Your task to perform on an android device: Open Google Maps Image 0: 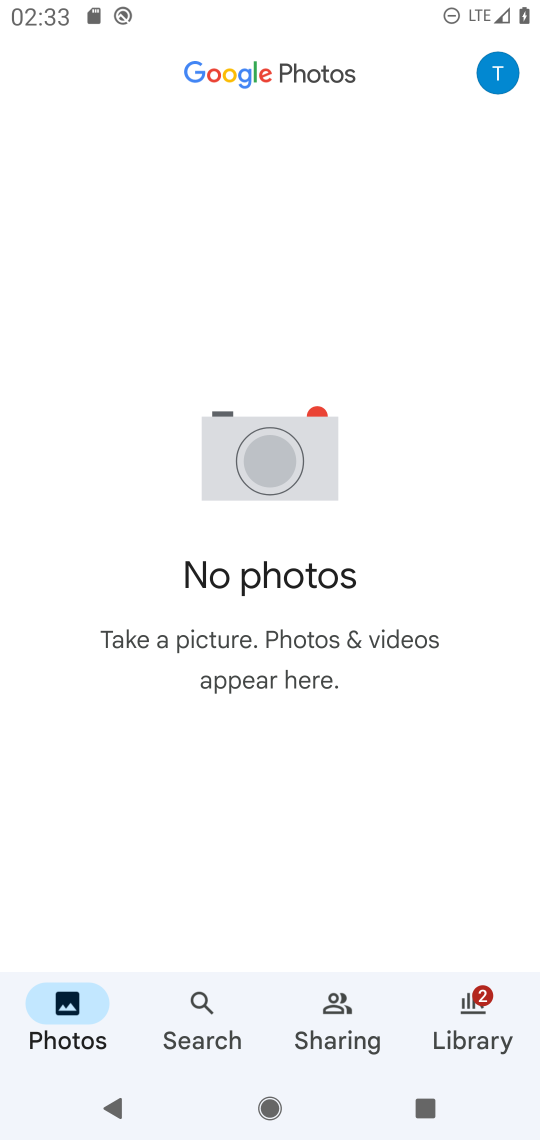
Step 0: press home button
Your task to perform on an android device: Open Google Maps Image 1: 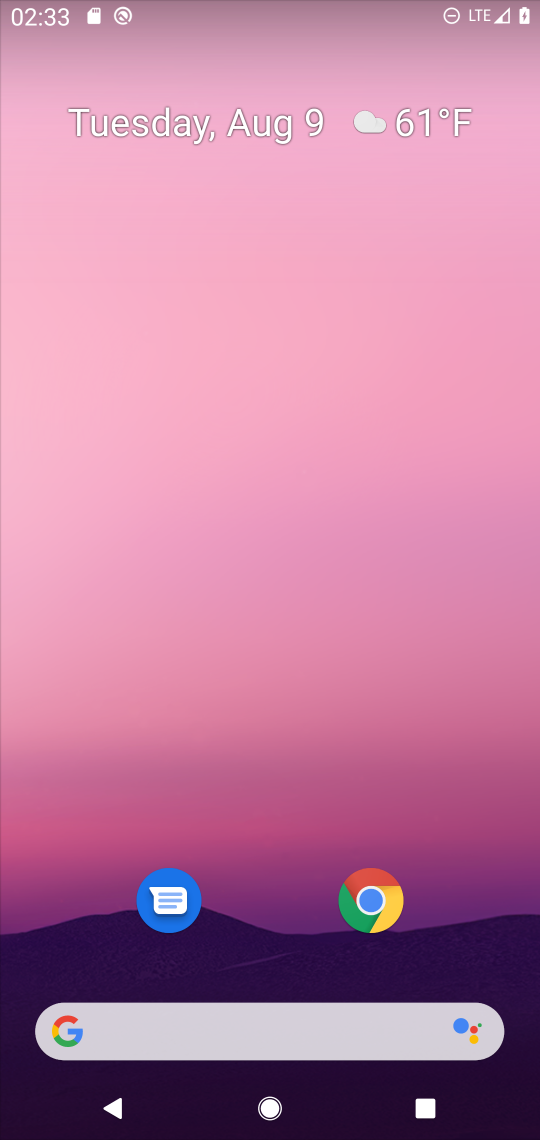
Step 1: drag from (465, 914) to (418, 164)
Your task to perform on an android device: Open Google Maps Image 2: 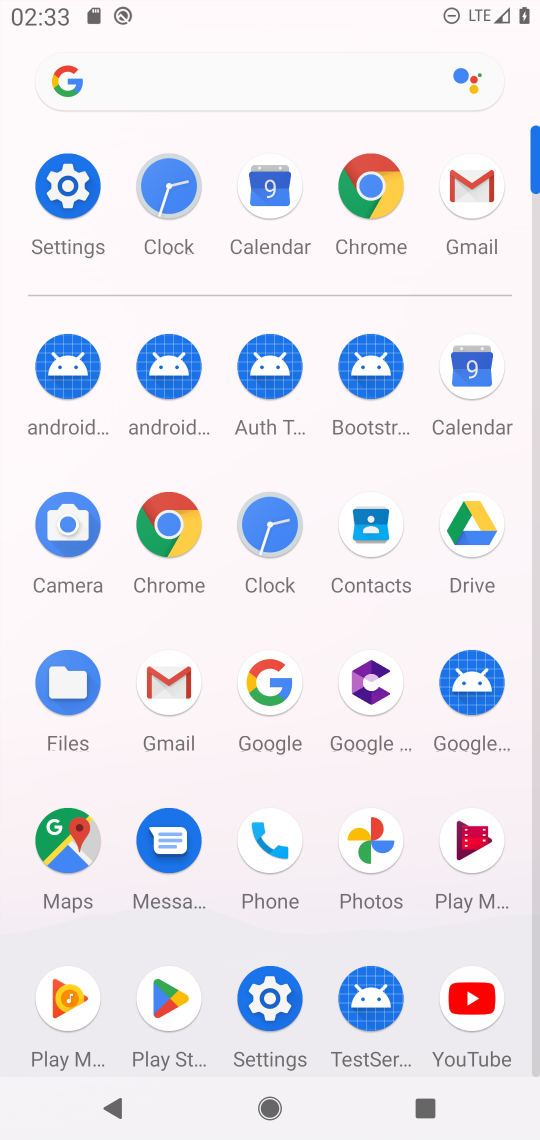
Step 2: click (57, 838)
Your task to perform on an android device: Open Google Maps Image 3: 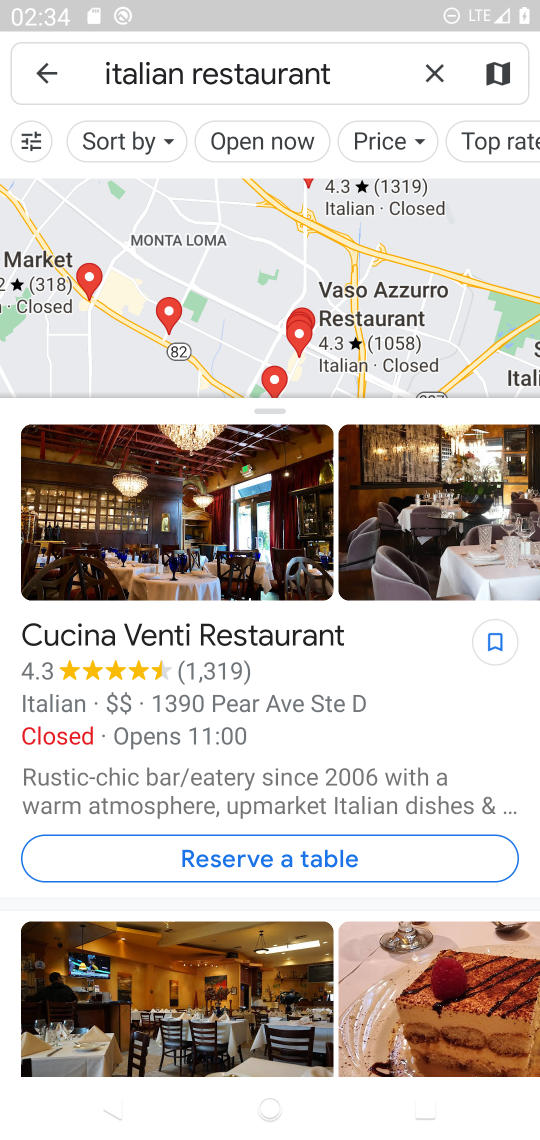
Step 3: task complete